Your task to perform on an android device: Go to internet settings Image 0: 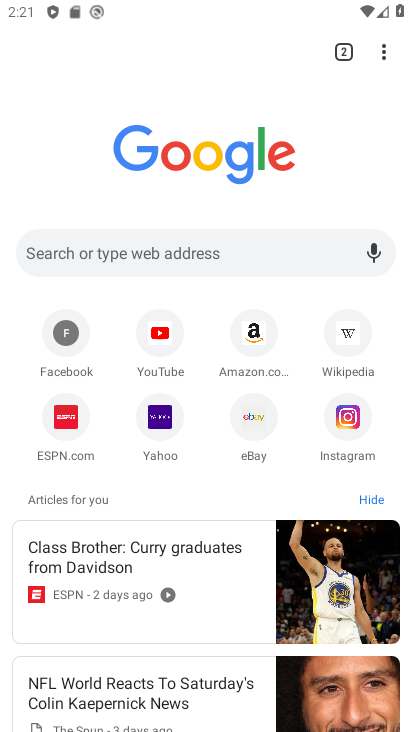
Step 0: press home button
Your task to perform on an android device: Go to internet settings Image 1: 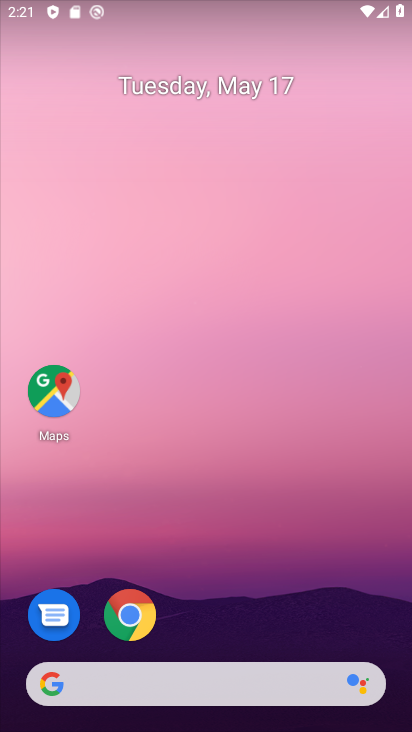
Step 1: drag from (208, 689) to (214, 164)
Your task to perform on an android device: Go to internet settings Image 2: 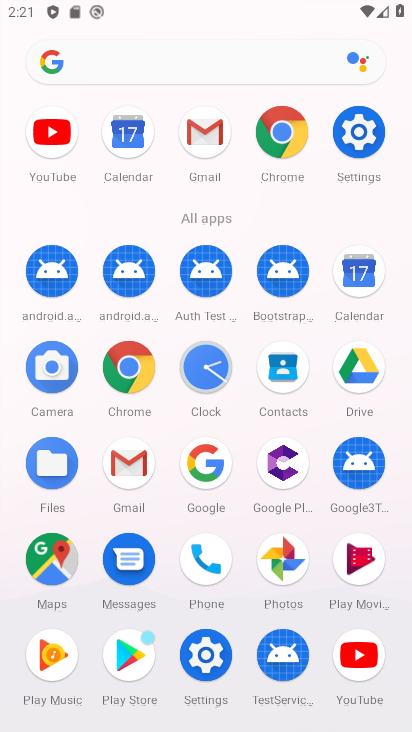
Step 2: click (364, 136)
Your task to perform on an android device: Go to internet settings Image 3: 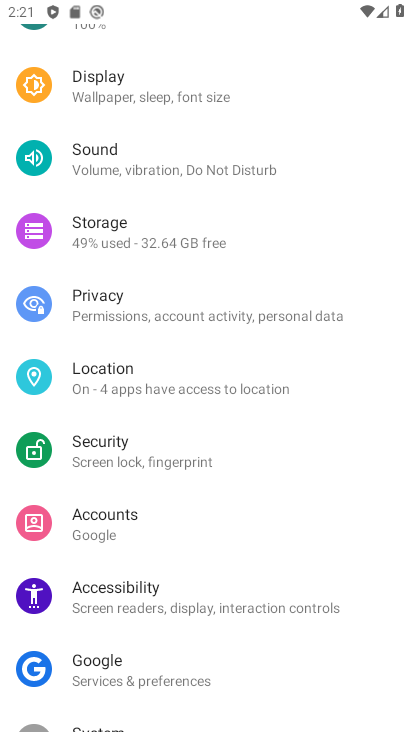
Step 3: drag from (227, 163) to (255, 501)
Your task to perform on an android device: Go to internet settings Image 4: 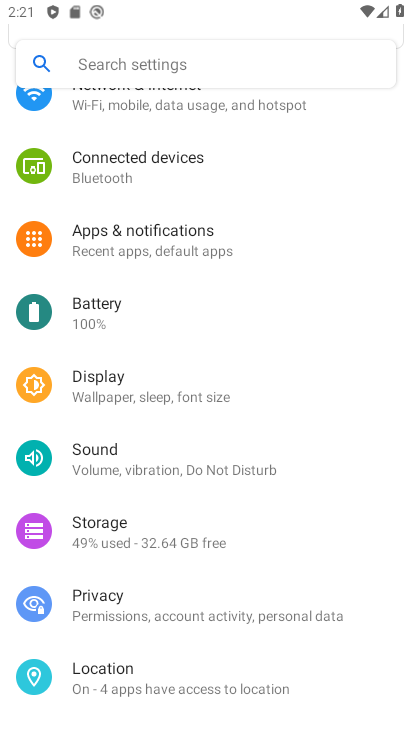
Step 4: drag from (208, 181) to (214, 541)
Your task to perform on an android device: Go to internet settings Image 5: 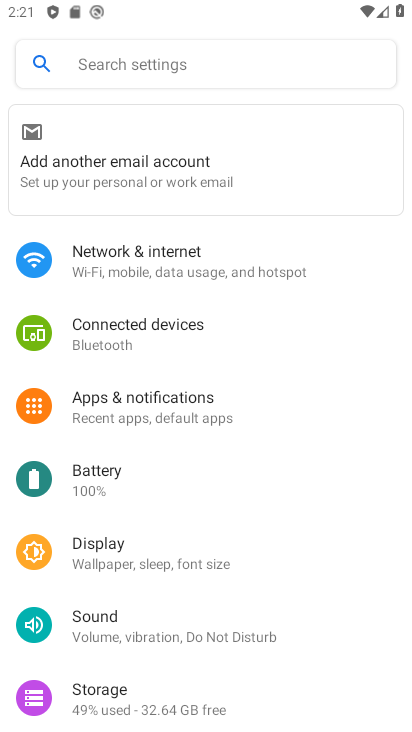
Step 5: click (117, 266)
Your task to perform on an android device: Go to internet settings Image 6: 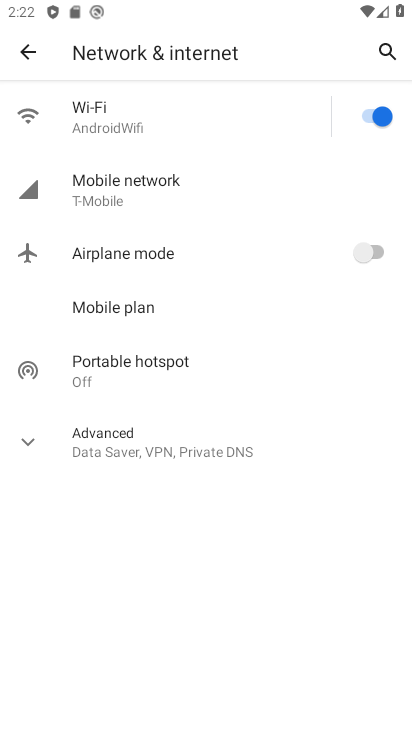
Step 6: task complete